Your task to perform on an android device: Turn off the flashlight Image 0: 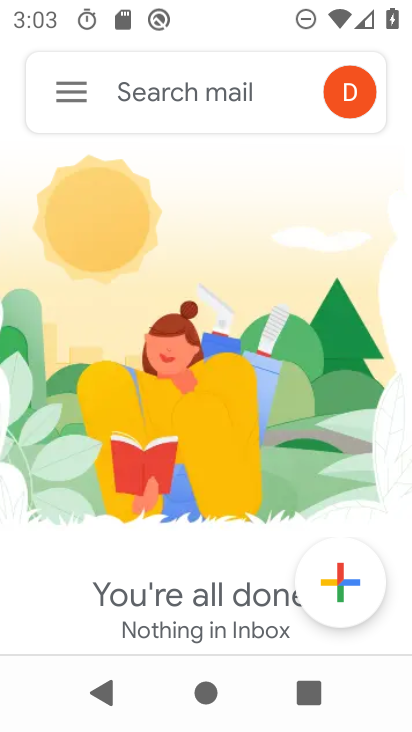
Step 0: press home button
Your task to perform on an android device: Turn off the flashlight Image 1: 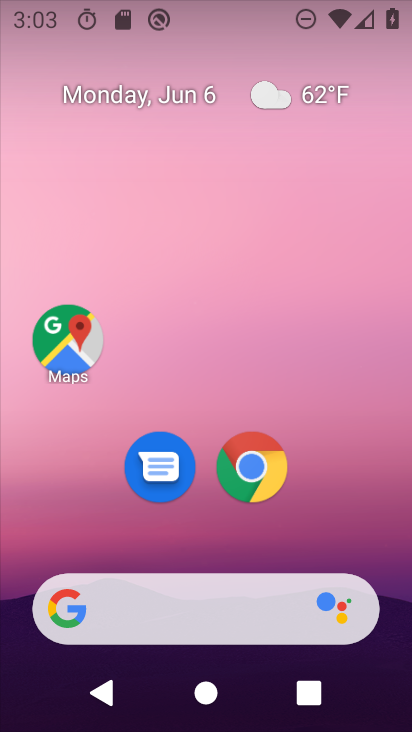
Step 1: drag from (198, 529) to (203, 264)
Your task to perform on an android device: Turn off the flashlight Image 2: 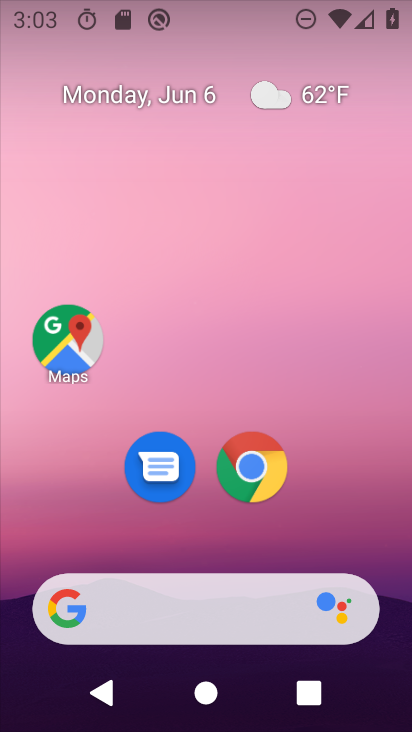
Step 2: drag from (204, 542) to (247, 172)
Your task to perform on an android device: Turn off the flashlight Image 3: 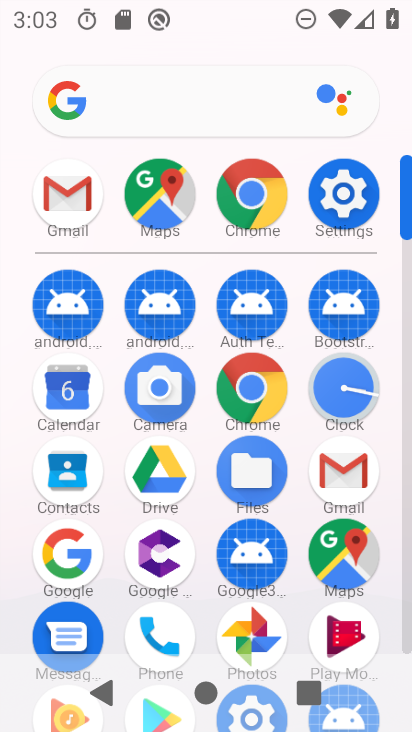
Step 3: drag from (283, 635) to (276, 207)
Your task to perform on an android device: Turn off the flashlight Image 4: 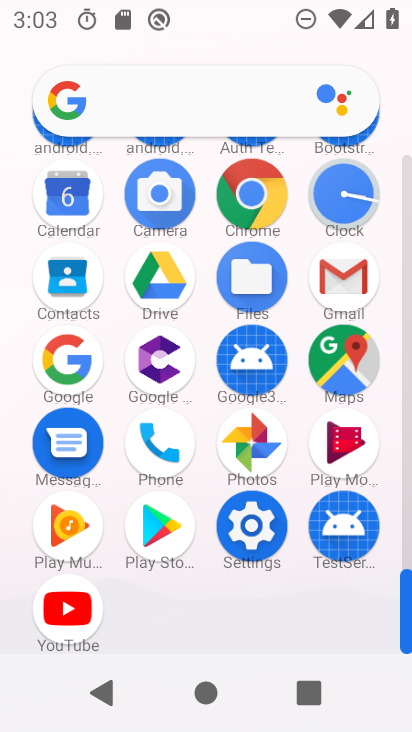
Step 4: click (248, 543)
Your task to perform on an android device: Turn off the flashlight Image 5: 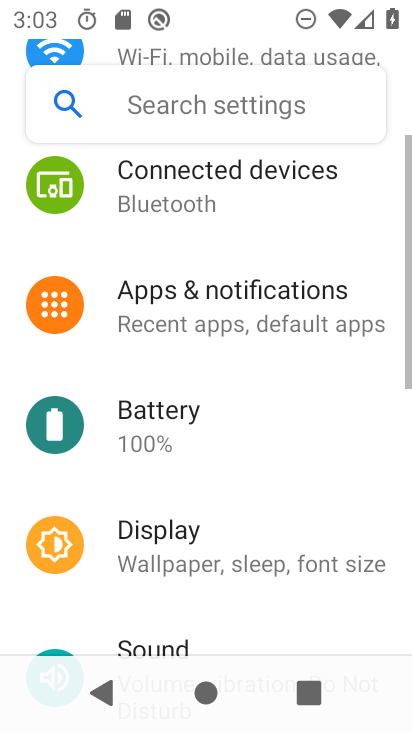
Step 5: task complete